Your task to perform on an android device: Go to Amazon Image 0: 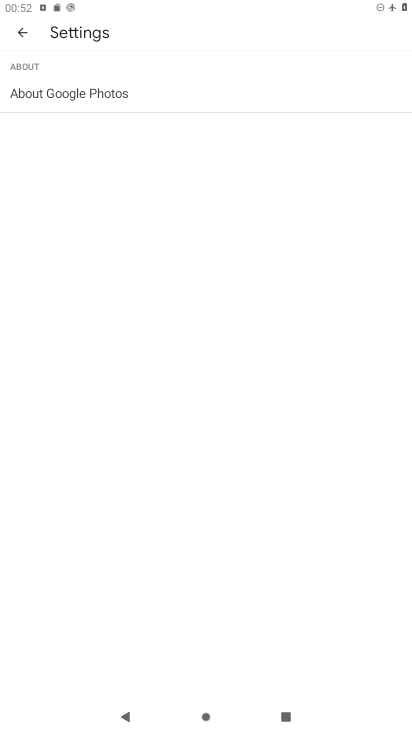
Step 0: click (16, 33)
Your task to perform on an android device: Go to Amazon Image 1: 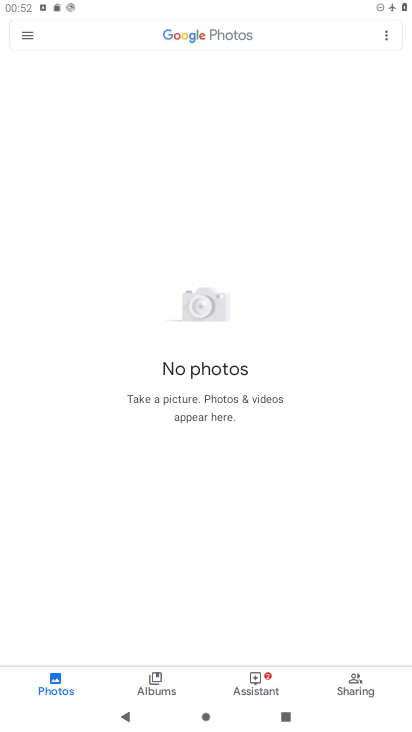
Step 1: press home button
Your task to perform on an android device: Go to Amazon Image 2: 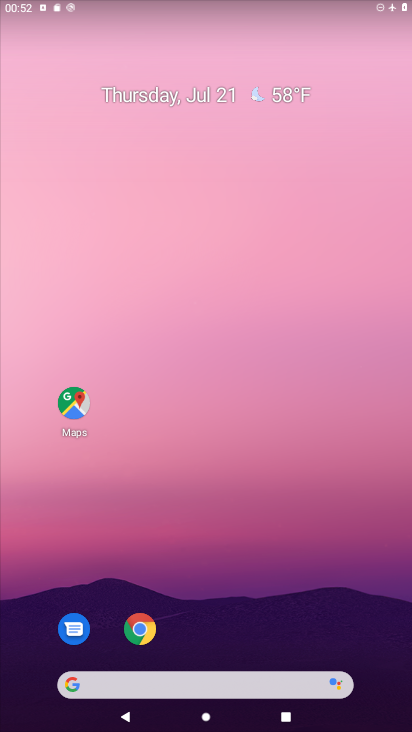
Step 2: click (145, 622)
Your task to perform on an android device: Go to Amazon Image 3: 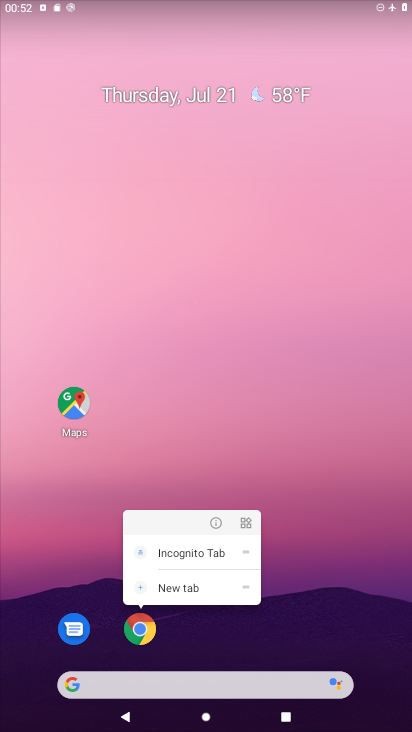
Step 3: click (141, 628)
Your task to perform on an android device: Go to Amazon Image 4: 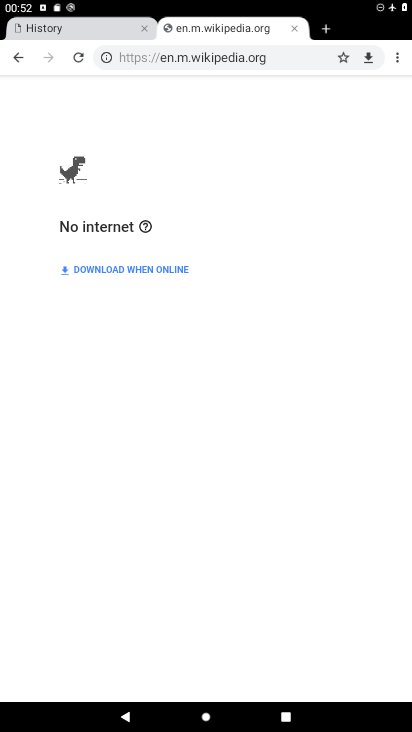
Step 4: click (329, 30)
Your task to perform on an android device: Go to Amazon Image 5: 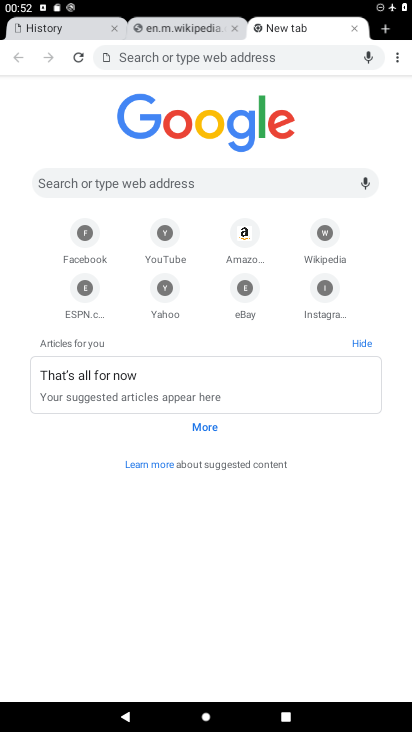
Step 5: click (243, 239)
Your task to perform on an android device: Go to Amazon Image 6: 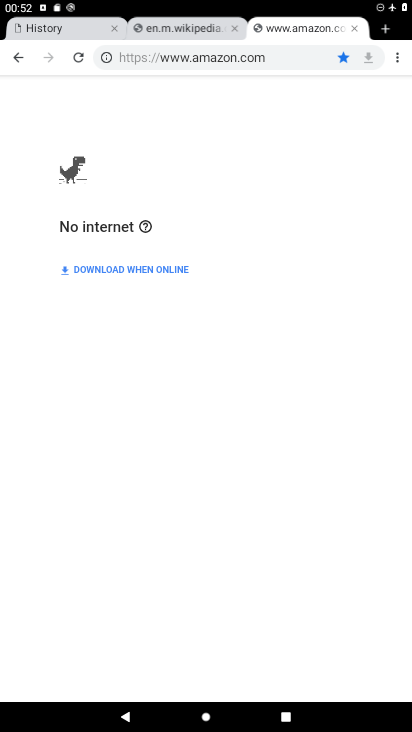
Step 6: task complete